Your task to perform on an android device: Is it going to rain tomorrow? Image 0: 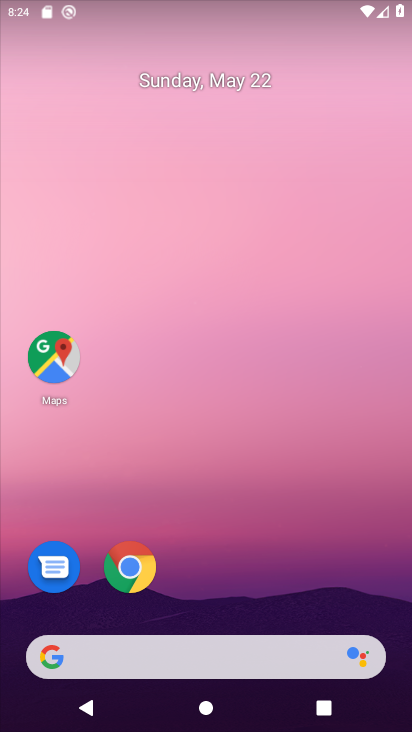
Step 0: drag from (335, 466) to (328, 22)
Your task to perform on an android device: Is it going to rain tomorrow? Image 1: 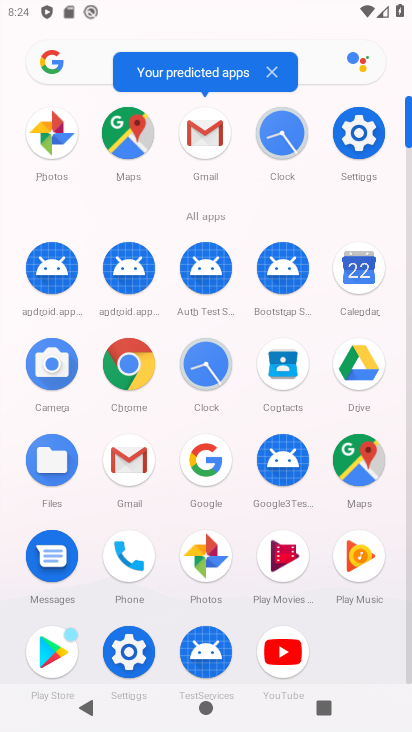
Step 1: click (134, 368)
Your task to perform on an android device: Is it going to rain tomorrow? Image 2: 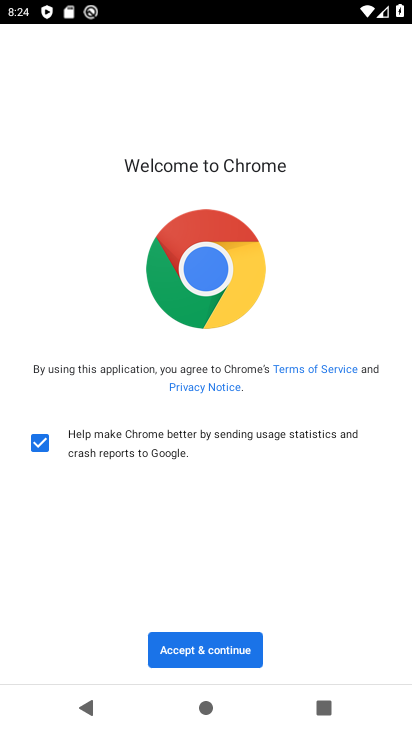
Step 2: click (210, 640)
Your task to perform on an android device: Is it going to rain tomorrow? Image 3: 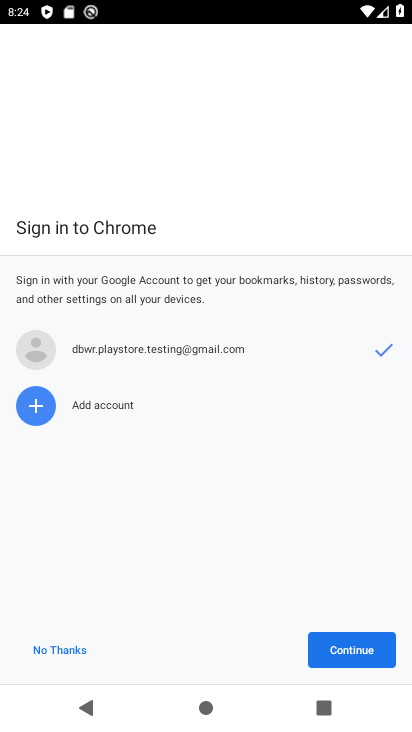
Step 3: click (350, 648)
Your task to perform on an android device: Is it going to rain tomorrow? Image 4: 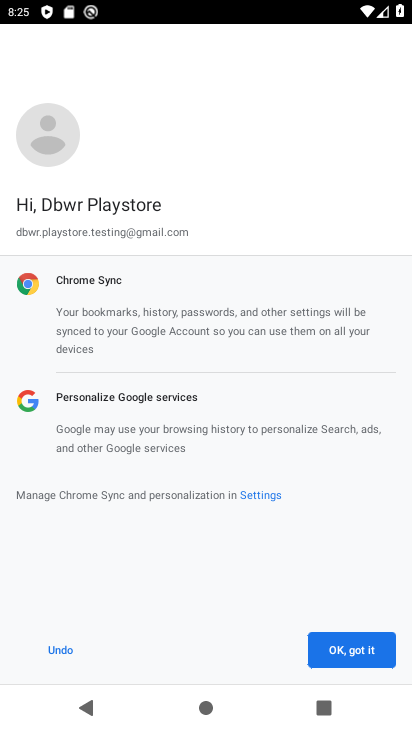
Step 4: click (345, 651)
Your task to perform on an android device: Is it going to rain tomorrow? Image 5: 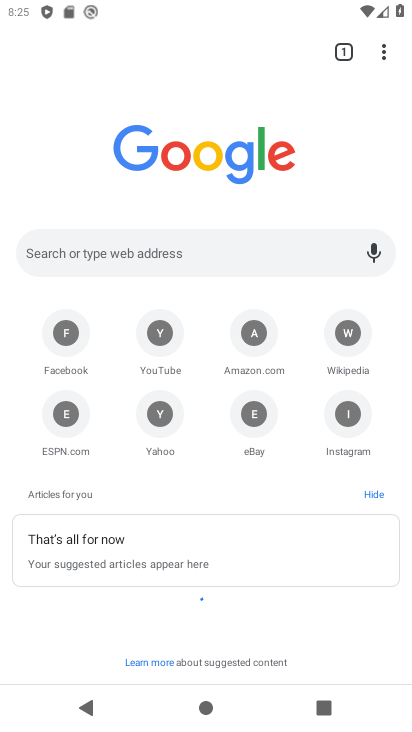
Step 5: click (229, 254)
Your task to perform on an android device: Is it going to rain tomorrow? Image 6: 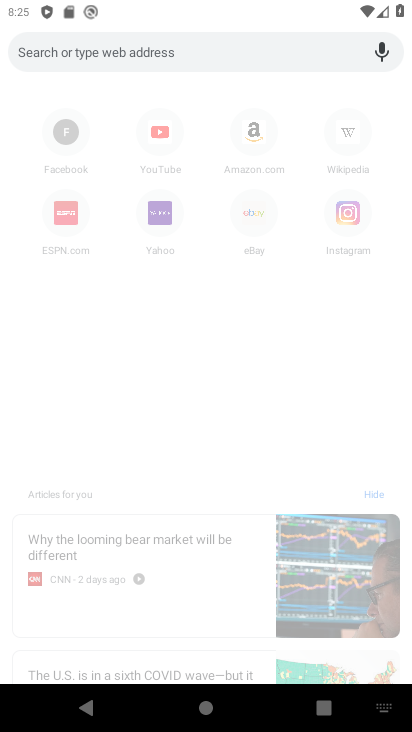
Step 6: type "weather"
Your task to perform on an android device: Is it going to rain tomorrow? Image 7: 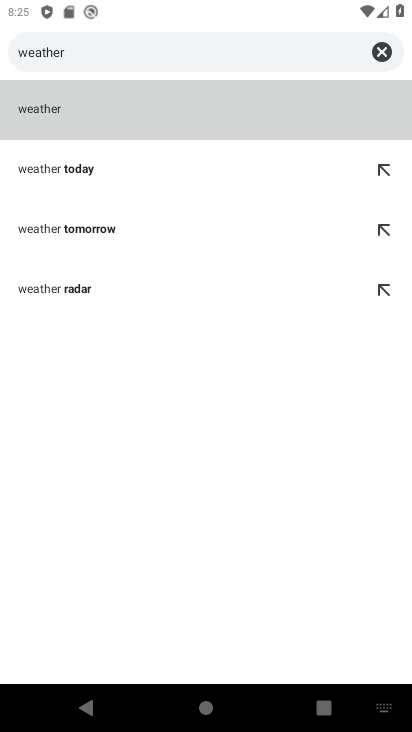
Step 7: click (51, 97)
Your task to perform on an android device: Is it going to rain tomorrow? Image 8: 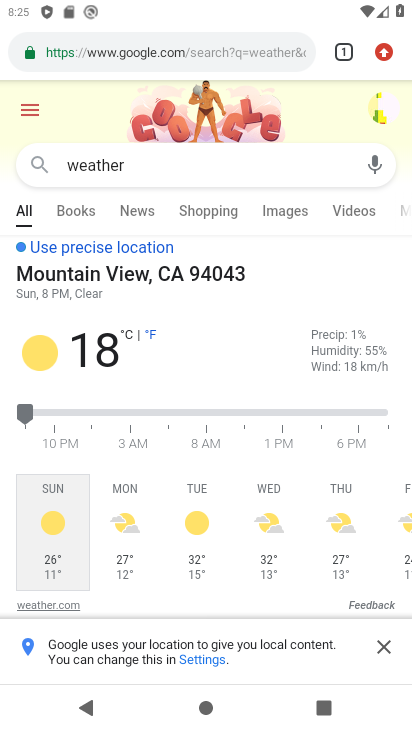
Step 8: click (138, 500)
Your task to perform on an android device: Is it going to rain tomorrow? Image 9: 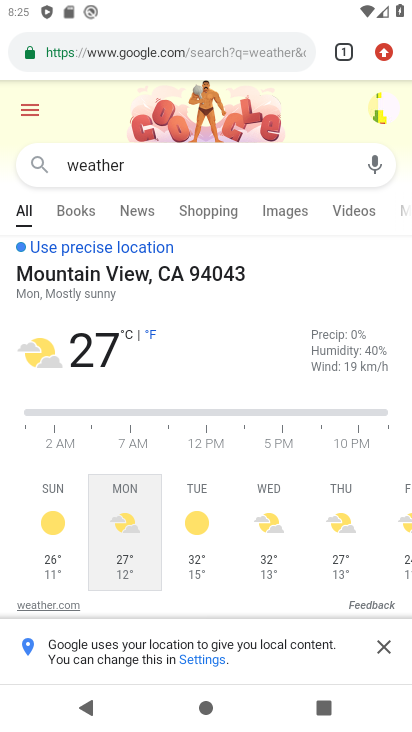
Step 9: task complete